Your task to perform on an android device: Open location settings Image 0: 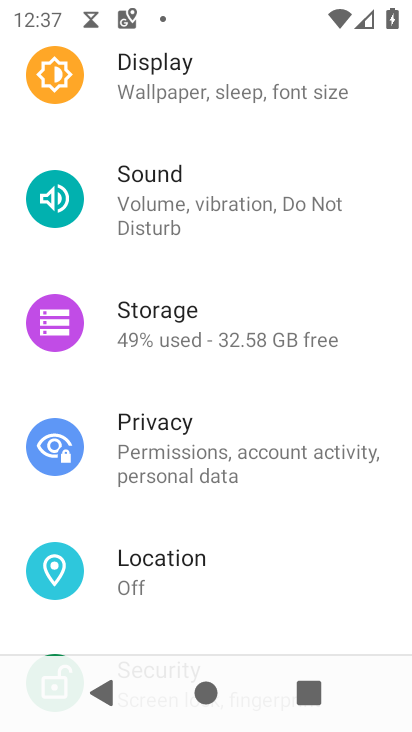
Step 0: click (342, 562)
Your task to perform on an android device: Open location settings Image 1: 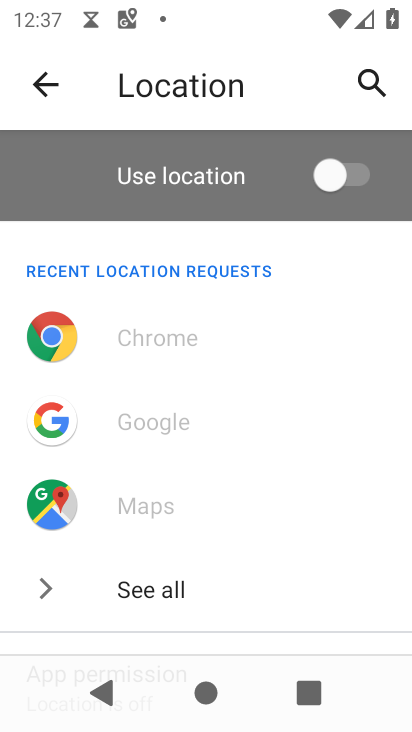
Step 1: task complete